Your task to perform on an android device: star an email in the gmail app Image 0: 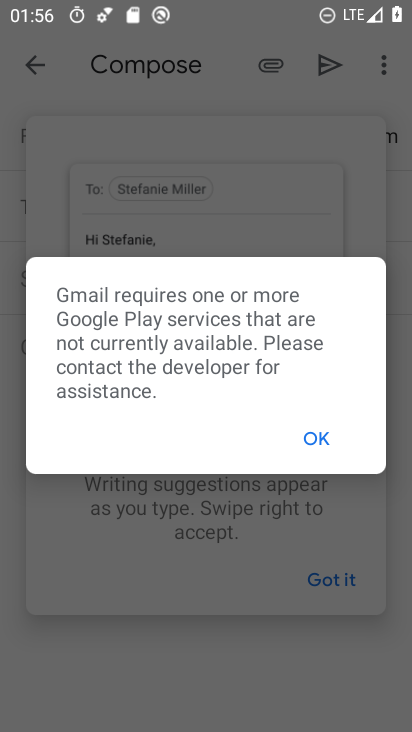
Step 0: press home button
Your task to perform on an android device: star an email in the gmail app Image 1: 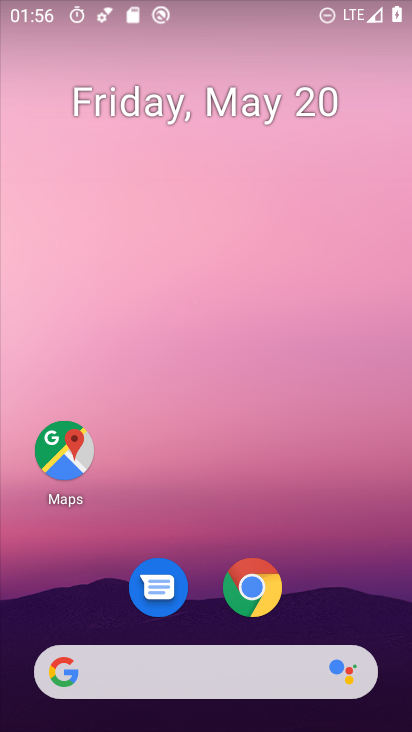
Step 1: drag from (367, 624) to (369, 149)
Your task to perform on an android device: star an email in the gmail app Image 2: 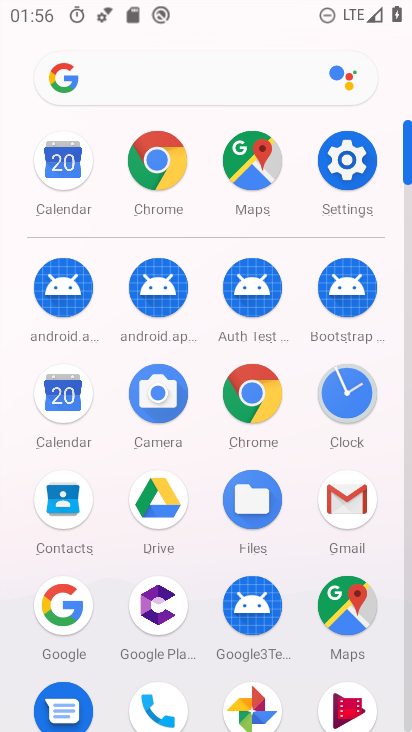
Step 2: click (364, 501)
Your task to perform on an android device: star an email in the gmail app Image 3: 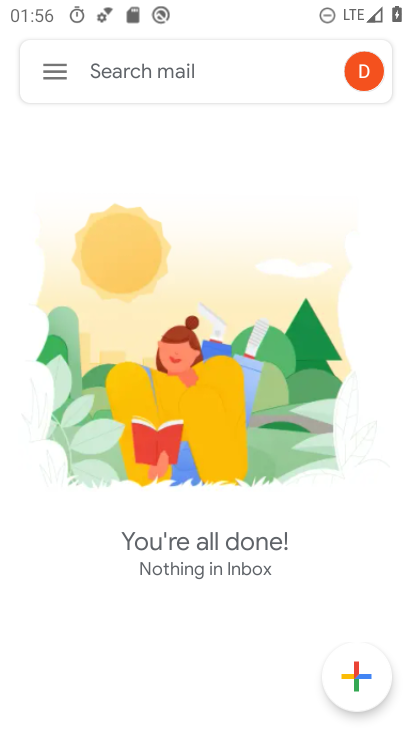
Step 3: click (55, 83)
Your task to perform on an android device: star an email in the gmail app Image 4: 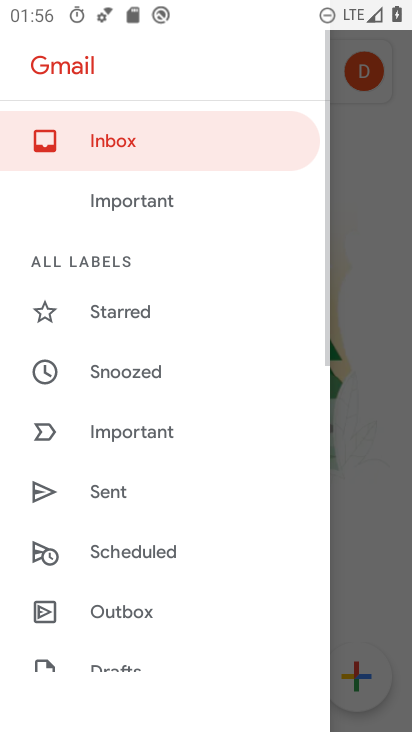
Step 4: drag from (244, 481) to (252, 420)
Your task to perform on an android device: star an email in the gmail app Image 5: 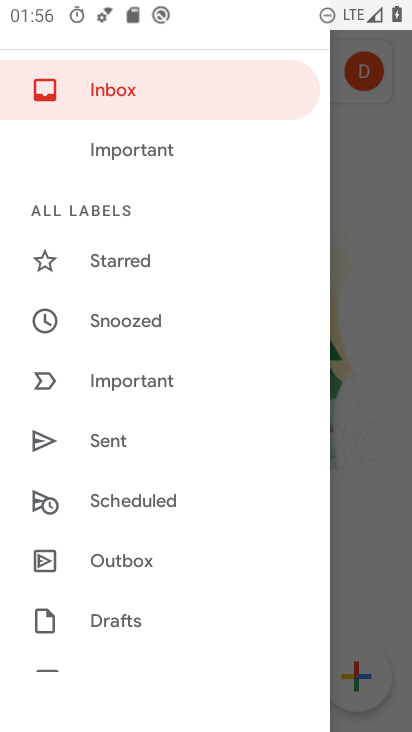
Step 5: drag from (255, 506) to (265, 413)
Your task to perform on an android device: star an email in the gmail app Image 6: 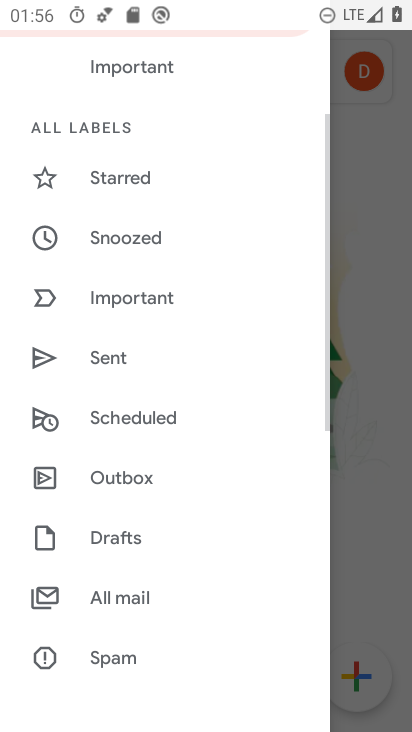
Step 6: drag from (270, 526) to (295, 435)
Your task to perform on an android device: star an email in the gmail app Image 7: 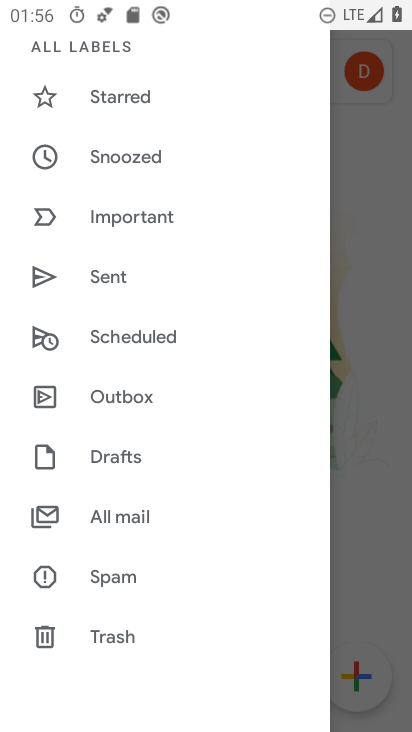
Step 7: drag from (271, 533) to (280, 477)
Your task to perform on an android device: star an email in the gmail app Image 8: 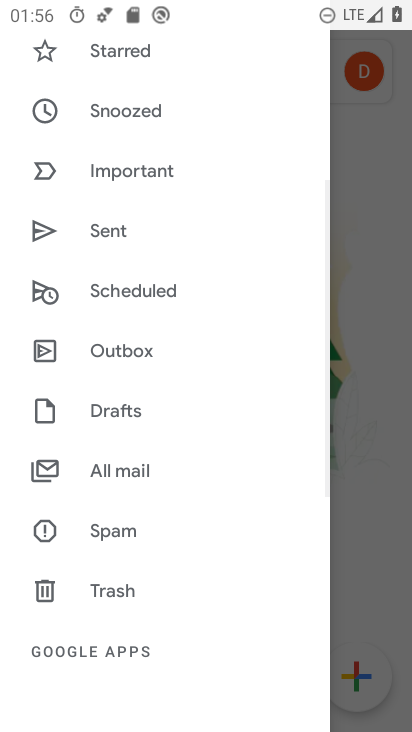
Step 8: drag from (266, 570) to (267, 510)
Your task to perform on an android device: star an email in the gmail app Image 9: 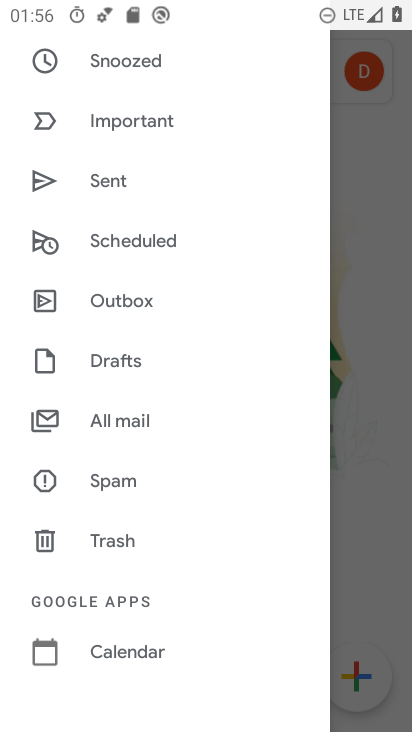
Step 9: drag from (253, 575) to (254, 532)
Your task to perform on an android device: star an email in the gmail app Image 10: 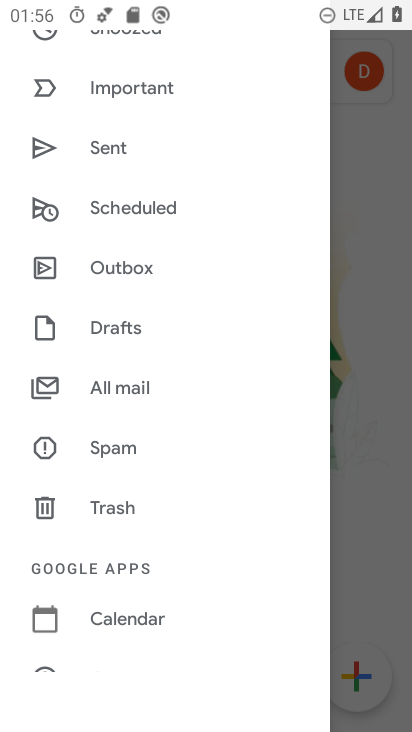
Step 10: drag from (246, 588) to (252, 503)
Your task to perform on an android device: star an email in the gmail app Image 11: 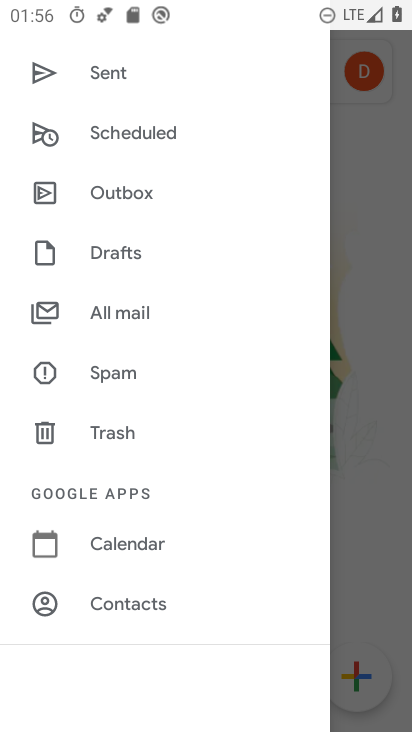
Step 11: drag from (248, 574) to (253, 531)
Your task to perform on an android device: star an email in the gmail app Image 12: 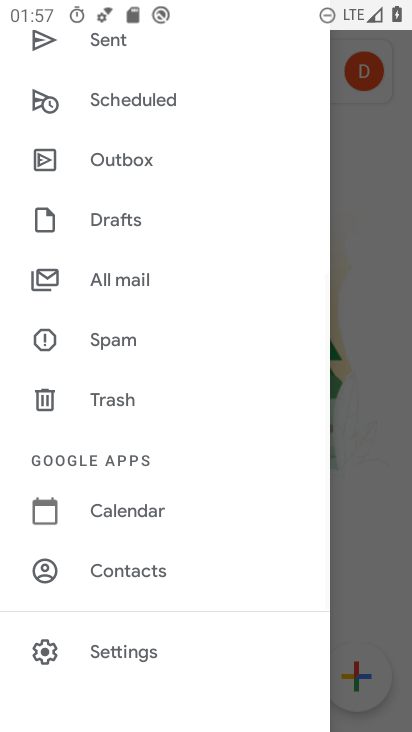
Step 12: drag from (249, 571) to (254, 520)
Your task to perform on an android device: star an email in the gmail app Image 13: 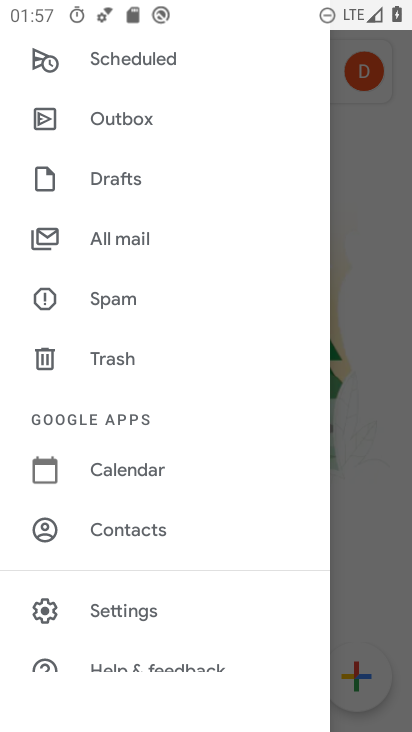
Step 13: drag from (252, 587) to (259, 534)
Your task to perform on an android device: star an email in the gmail app Image 14: 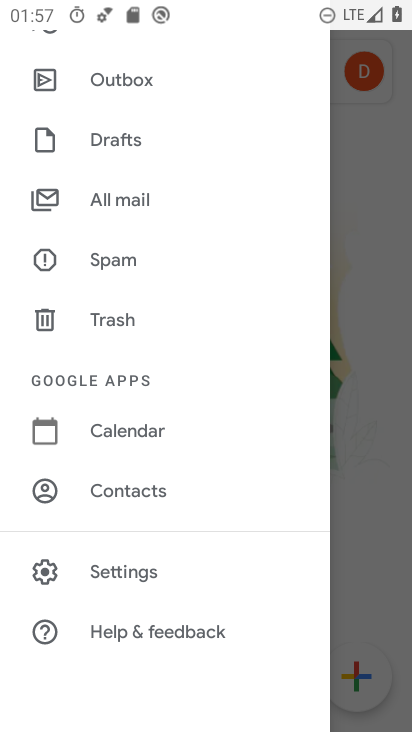
Step 14: drag from (261, 431) to (262, 493)
Your task to perform on an android device: star an email in the gmail app Image 15: 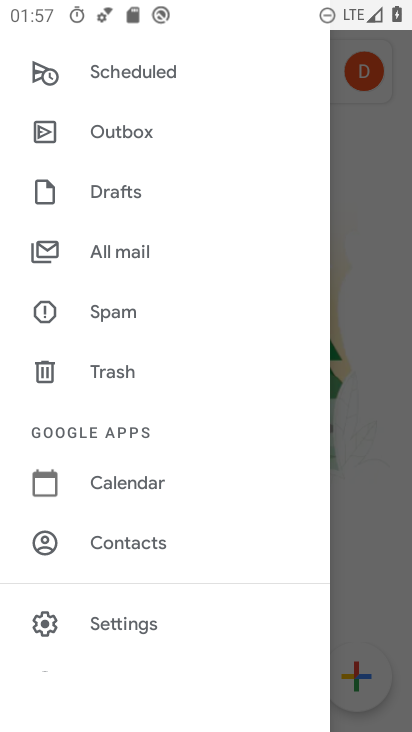
Step 15: drag from (264, 367) to (261, 448)
Your task to perform on an android device: star an email in the gmail app Image 16: 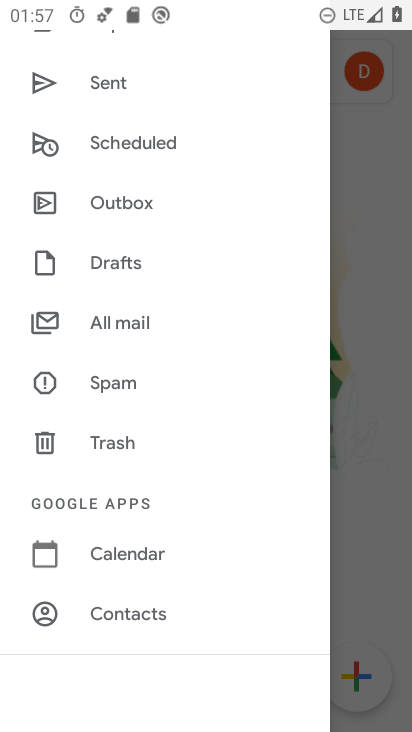
Step 16: drag from (264, 349) to (263, 415)
Your task to perform on an android device: star an email in the gmail app Image 17: 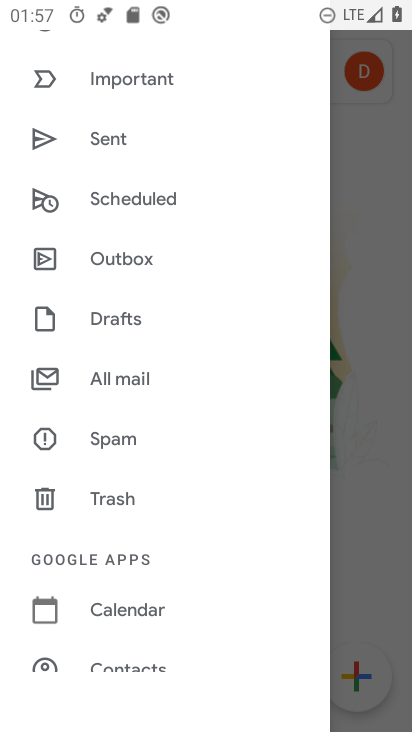
Step 17: drag from (252, 362) to (250, 407)
Your task to perform on an android device: star an email in the gmail app Image 18: 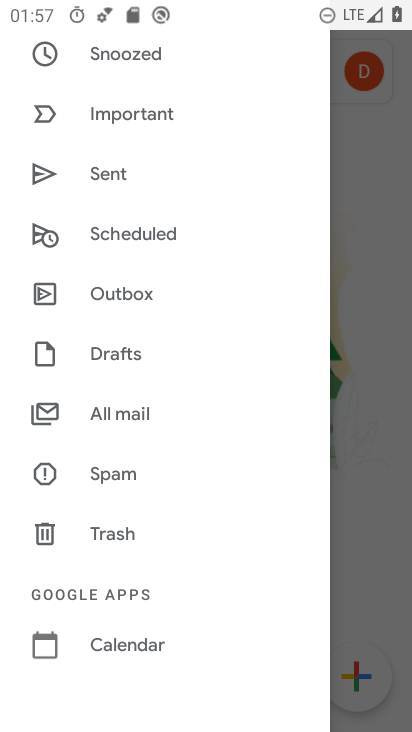
Step 18: drag from (253, 378) to (247, 432)
Your task to perform on an android device: star an email in the gmail app Image 19: 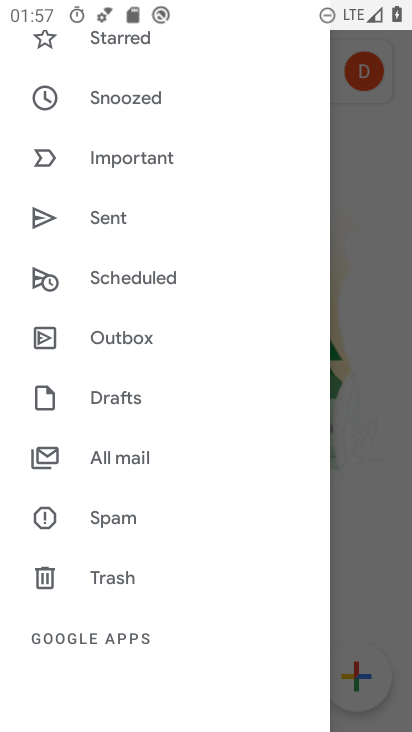
Step 19: drag from (245, 320) to (247, 403)
Your task to perform on an android device: star an email in the gmail app Image 20: 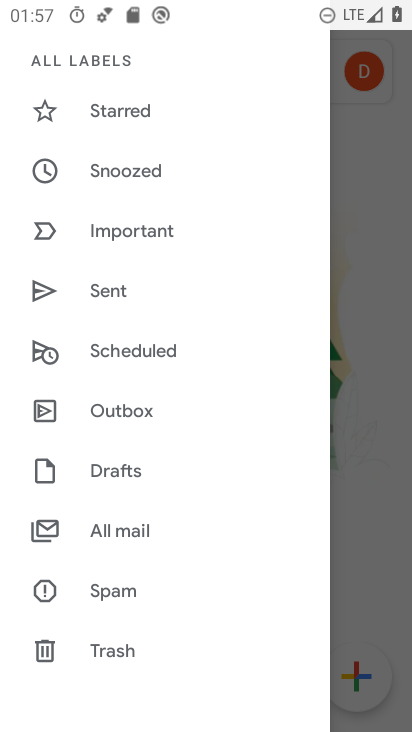
Step 20: drag from (250, 312) to (253, 379)
Your task to perform on an android device: star an email in the gmail app Image 21: 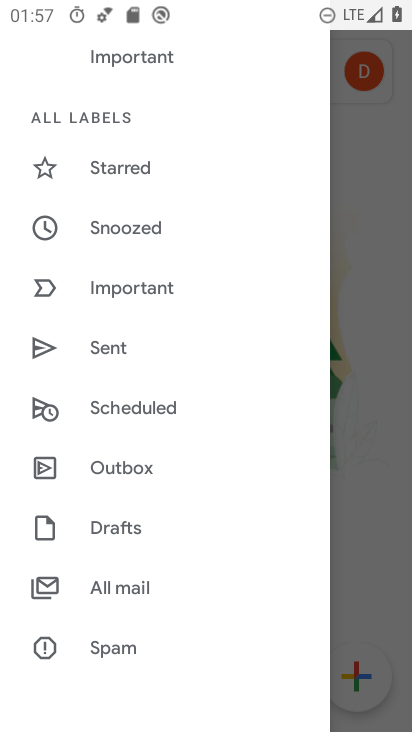
Step 21: drag from (252, 290) to (241, 384)
Your task to perform on an android device: star an email in the gmail app Image 22: 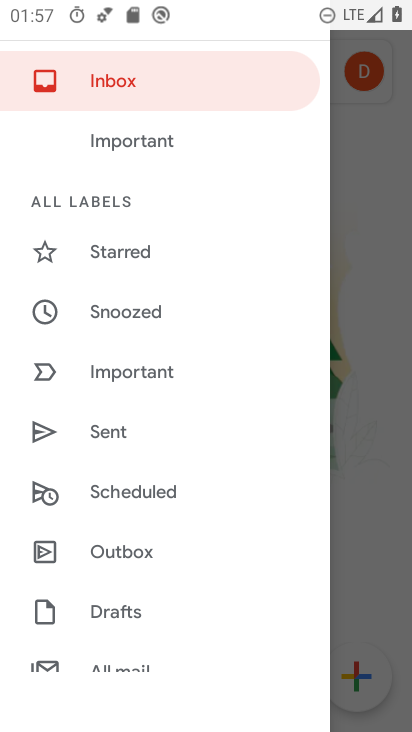
Step 22: drag from (240, 273) to (242, 365)
Your task to perform on an android device: star an email in the gmail app Image 23: 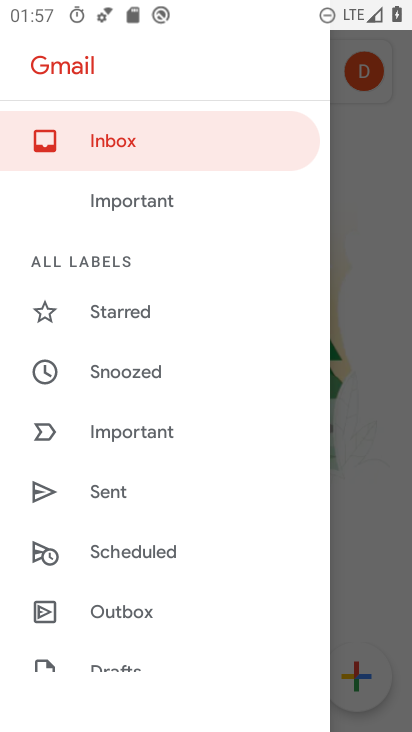
Step 23: click (192, 149)
Your task to perform on an android device: star an email in the gmail app Image 24: 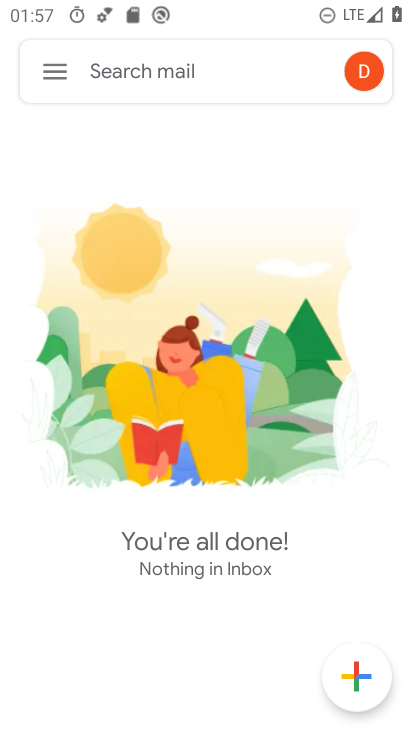
Step 24: task complete